Your task to perform on an android device: Go to notification settings Image 0: 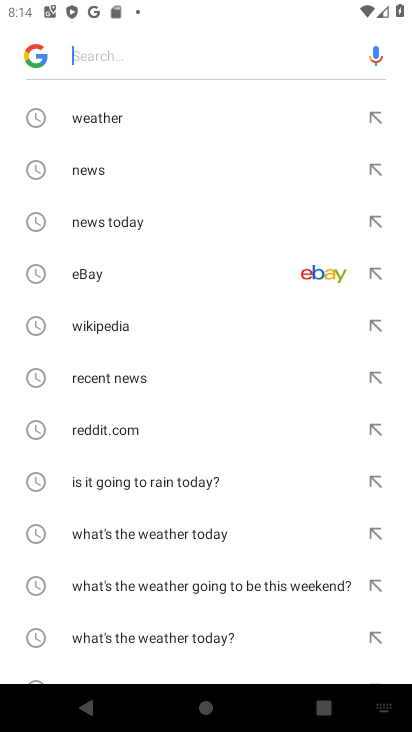
Step 0: press home button
Your task to perform on an android device: Go to notification settings Image 1: 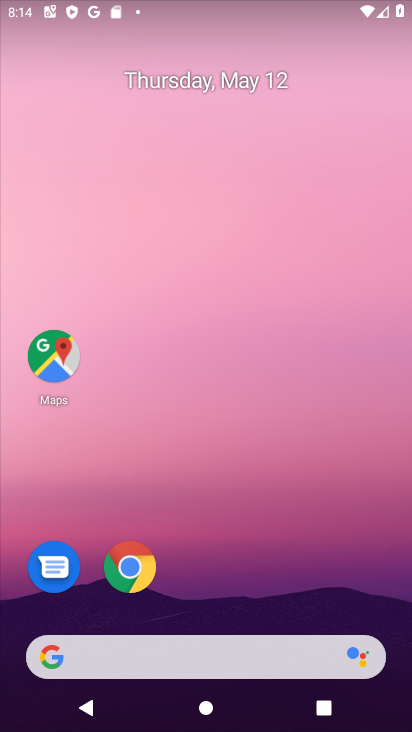
Step 1: drag from (197, 616) to (199, 192)
Your task to perform on an android device: Go to notification settings Image 2: 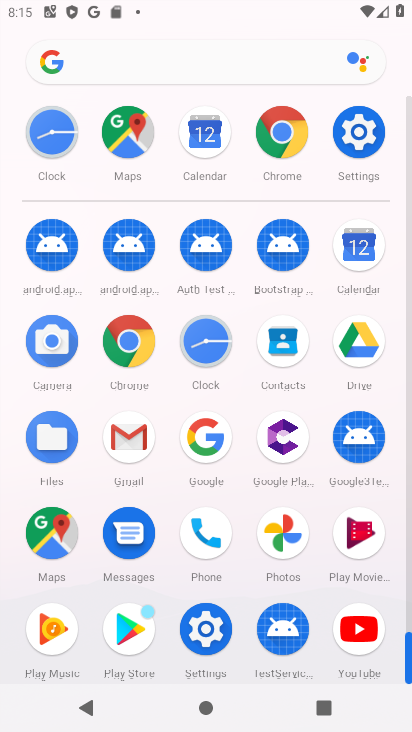
Step 2: click (363, 151)
Your task to perform on an android device: Go to notification settings Image 3: 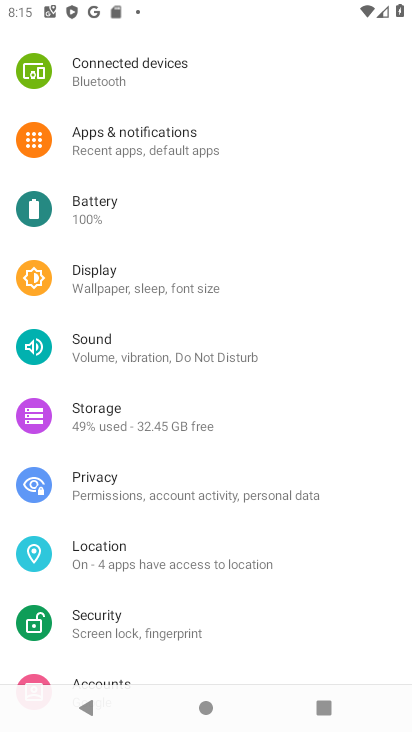
Step 3: click (204, 137)
Your task to perform on an android device: Go to notification settings Image 4: 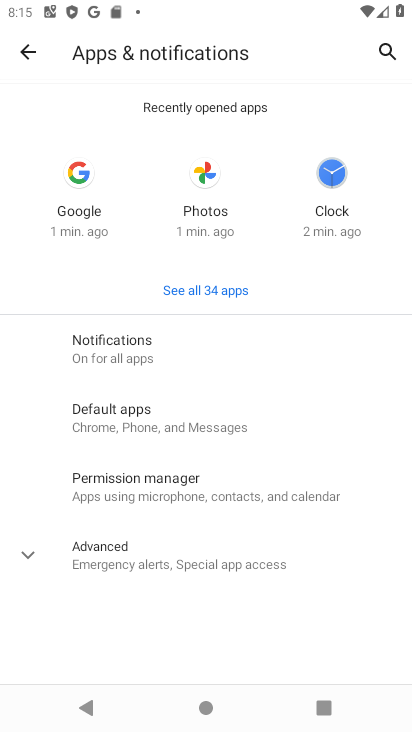
Step 4: task complete